Your task to perform on an android device: set the stopwatch Image 0: 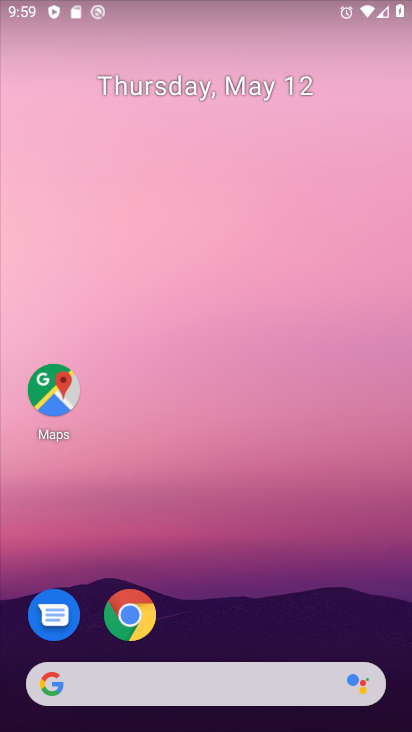
Step 0: click (137, 607)
Your task to perform on an android device: set the stopwatch Image 1: 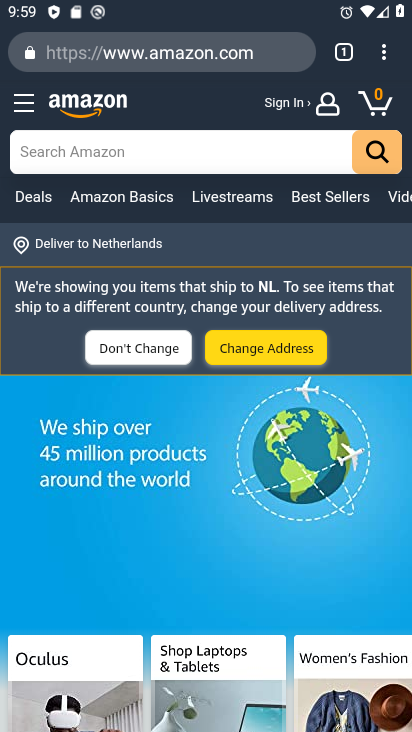
Step 1: press home button
Your task to perform on an android device: set the stopwatch Image 2: 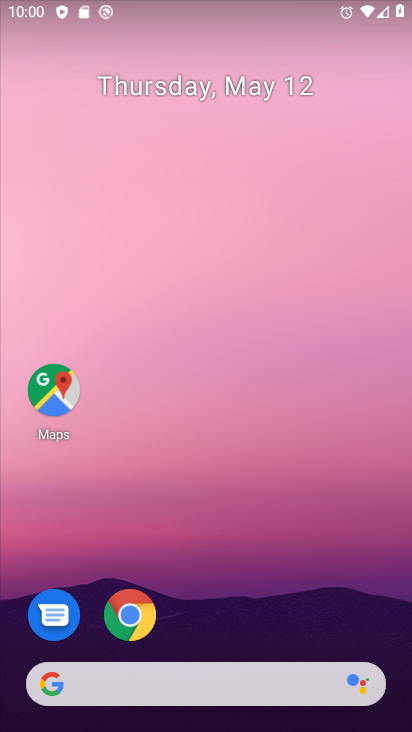
Step 2: drag from (330, 490) to (6, 174)
Your task to perform on an android device: set the stopwatch Image 3: 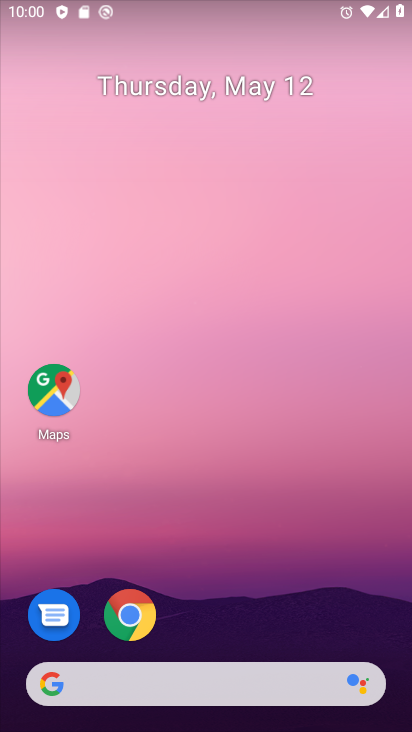
Step 3: drag from (374, 197) to (311, 16)
Your task to perform on an android device: set the stopwatch Image 4: 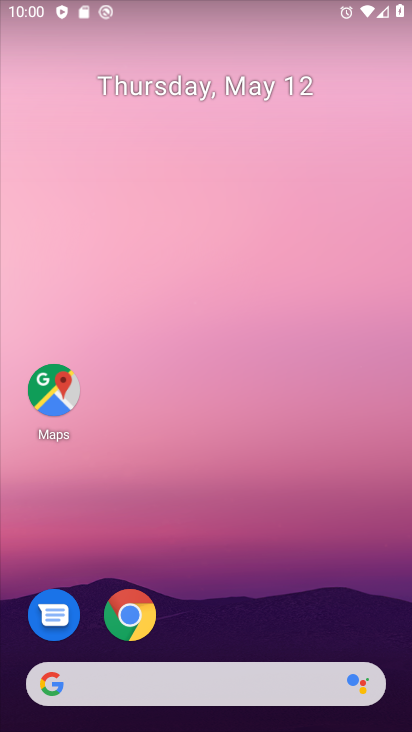
Step 4: drag from (371, 573) to (247, 31)
Your task to perform on an android device: set the stopwatch Image 5: 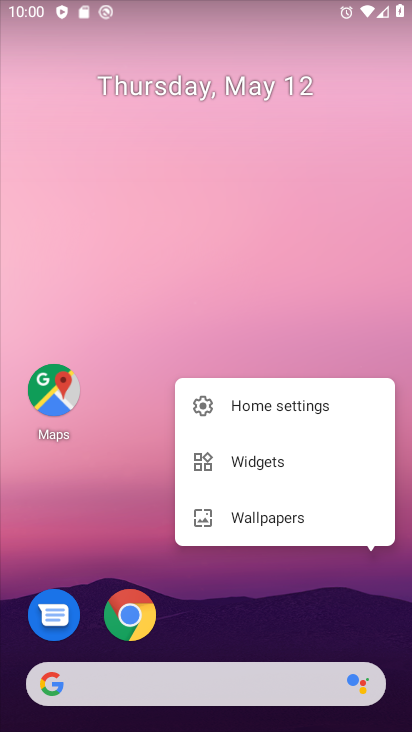
Step 5: click (245, 610)
Your task to perform on an android device: set the stopwatch Image 6: 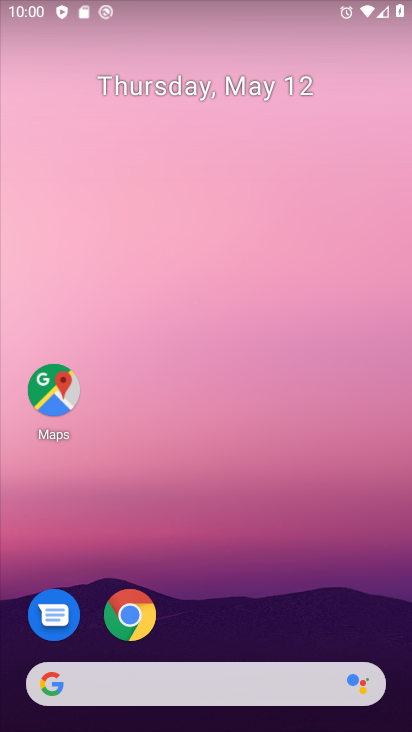
Step 6: drag from (259, 613) to (262, 99)
Your task to perform on an android device: set the stopwatch Image 7: 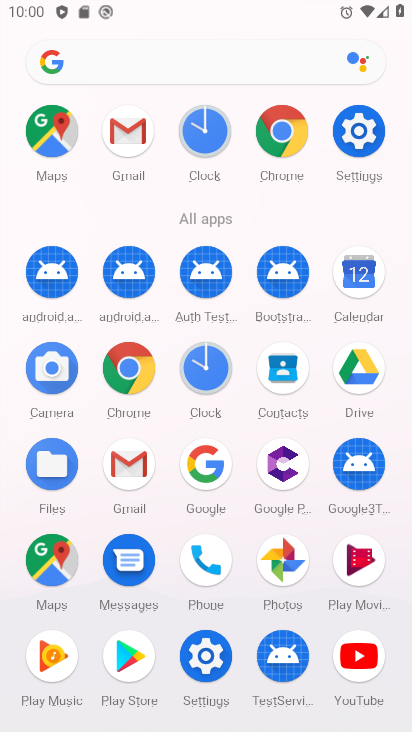
Step 7: click (200, 369)
Your task to perform on an android device: set the stopwatch Image 8: 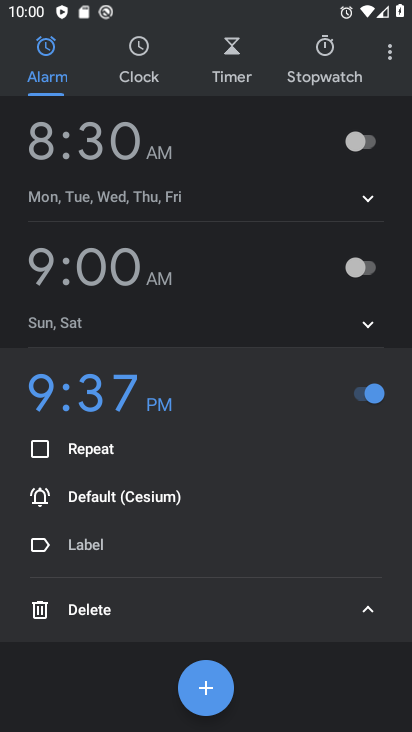
Step 8: click (342, 68)
Your task to perform on an android device: set the stopwatch Image 9: 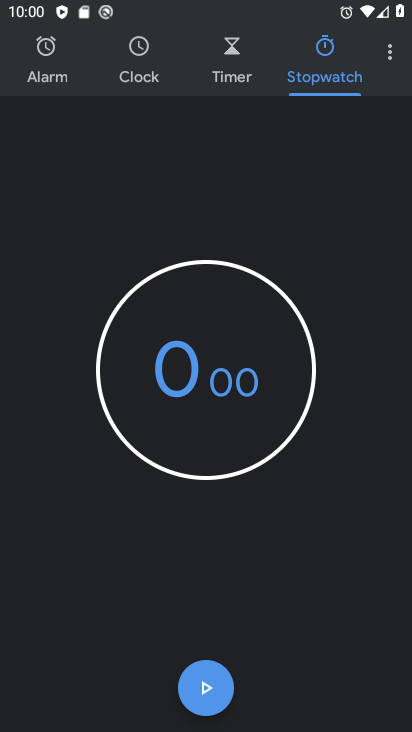
Step 9: click (199, 678)
Your task to perform on an android device: set the stopwatch Image 10: 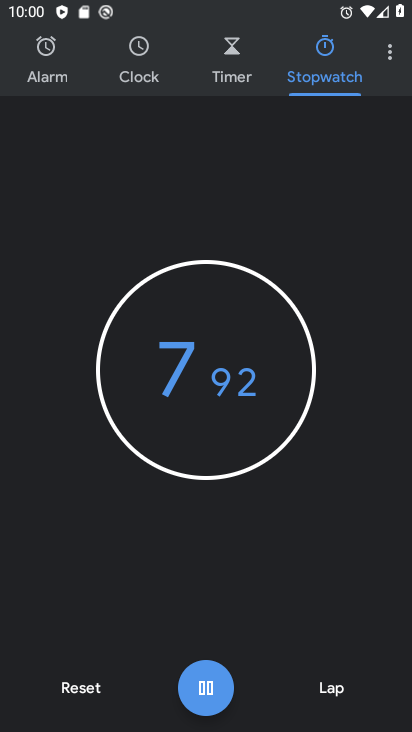
Step 10: click (187, 683)
Your task to perform on an android device: set the stopwatch Image 11: 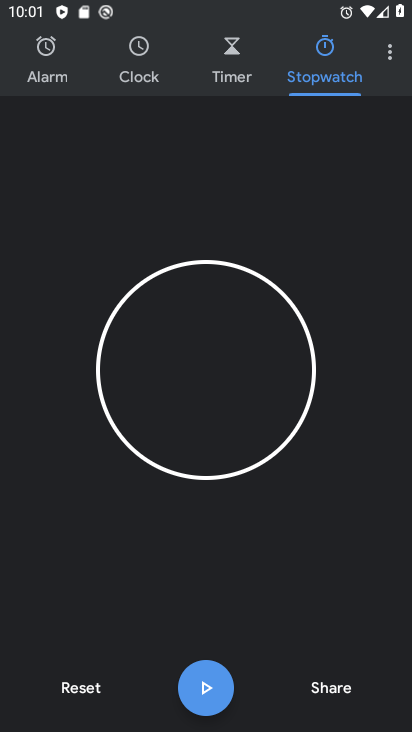
Step 11: task complete